Your task to perform on an android device: turn on data saver in the chrome app Image 0: 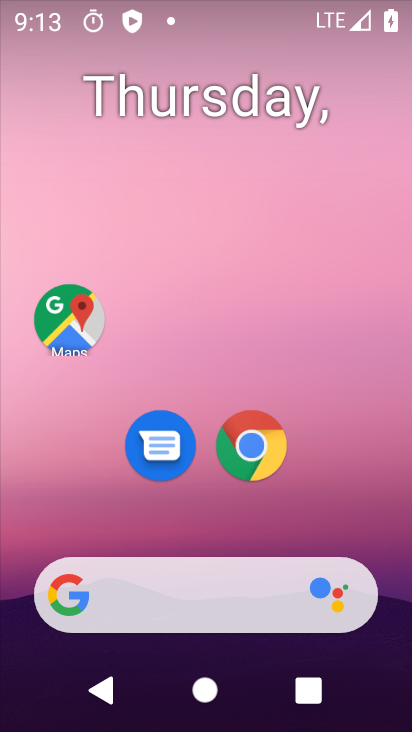
Step 0: click (248, 443)
Your task to perform on an android device: turn on data saver in the chrome app Image 1: 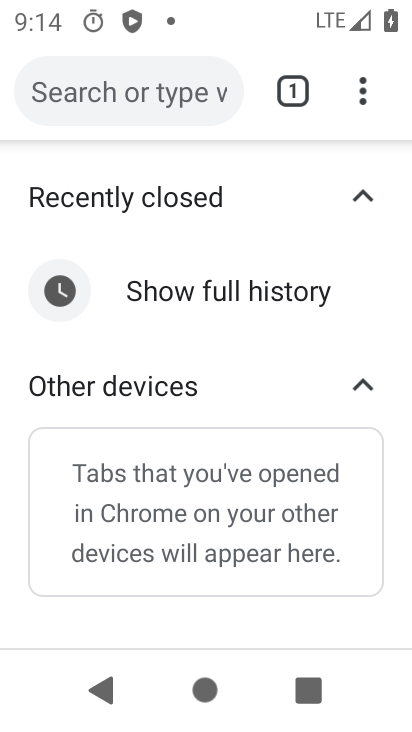
Step 1: click (362, 100)
Your task to perform on an android device: turn on data saver in the chrome app Image 2: 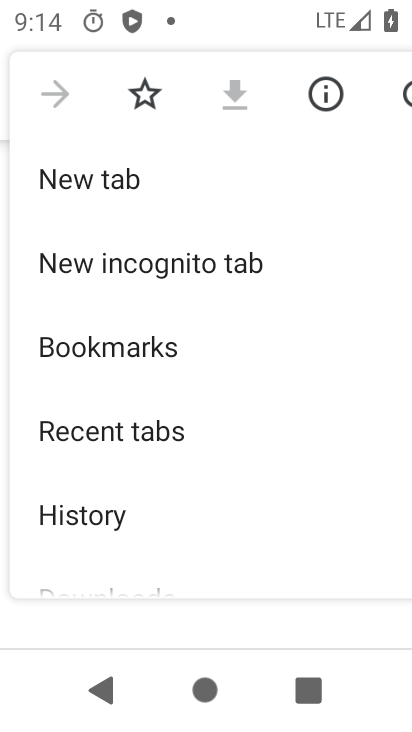
Step 2: drag from (237, 521) to (218, 88)
Your task to perform on an android device: turn on data saver in the chrome app Image 3: 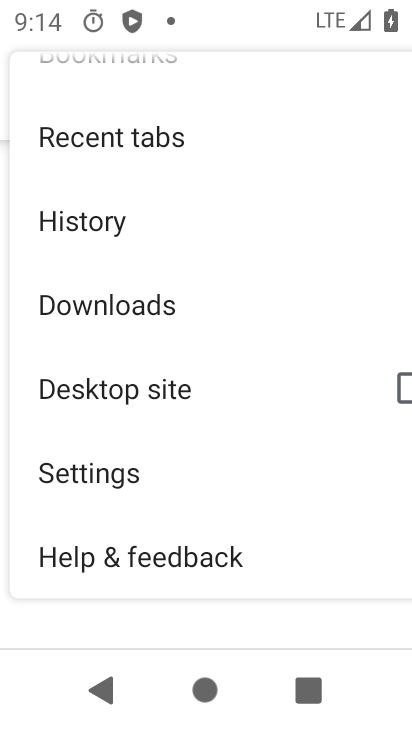
Step 3: drag from (183, 468) to (168, 294)
Your task to perform on an android device: turn on data saver in the chrome app Image 4: 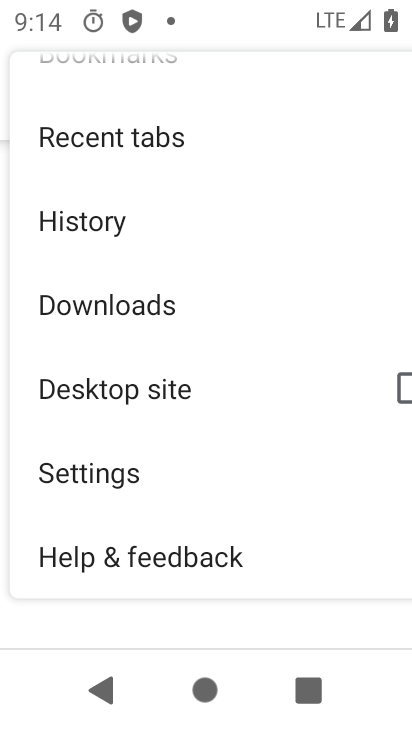
Step 4: click (57, 478)
Your task to perform on an android device: turn on data saver in the chrome app Image 5: 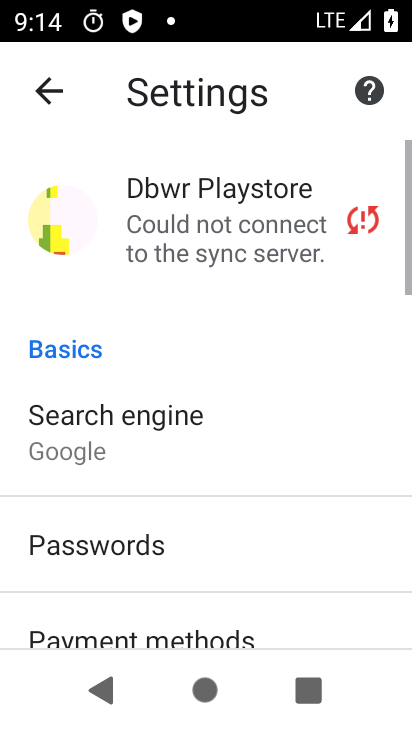
Step 5: drag from (252, 519) to (239, 137)
Your task to perform on an android device: turn on data saver in the chrome app Image 6: 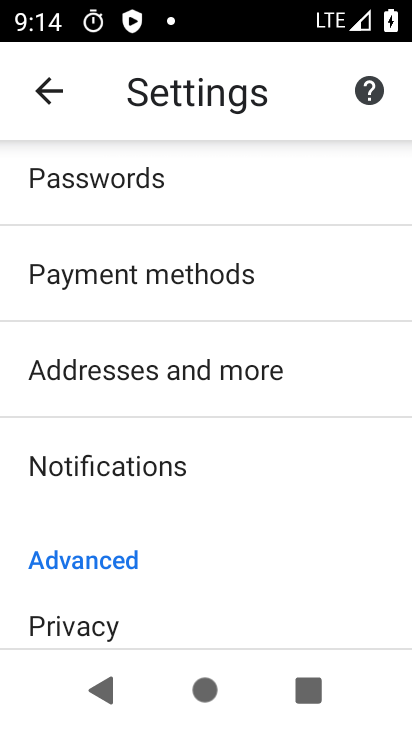
Step 6: drag from (212, 550) to (204, 121)
Your task to perform on an android device: turn on data saver in the chrome app Image 7: 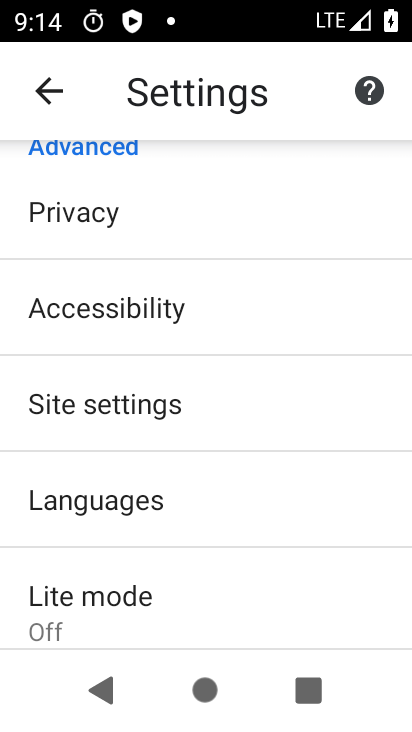
Step 7: drag from (205, 484) to (199, 236)
Your task to perform on an android device: turn on data saver in the chrome app Image 8: 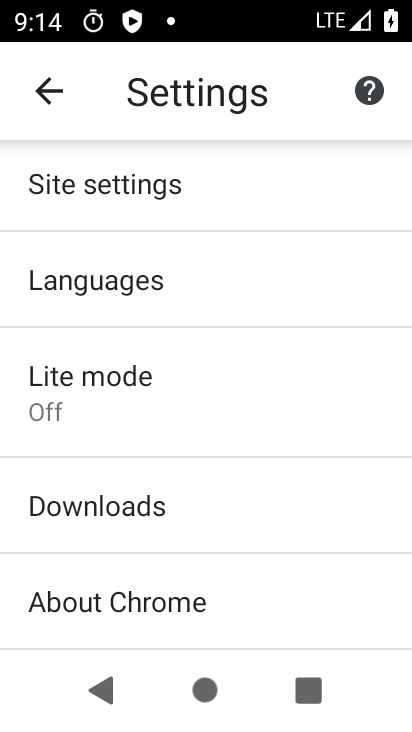
Step 8: click (67, 391)
Your task to perform on an android device: turn on data saver in the chrome app Image 9: 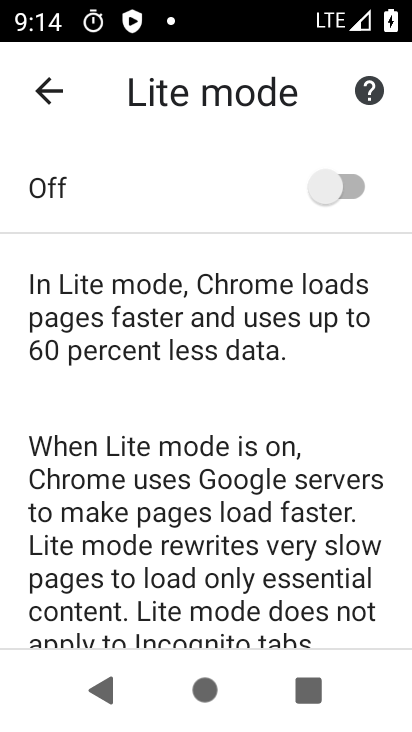
Step 9: click (342, 188)
Your task to perform on an android device: turn on data saver in the chrome app Image 10: 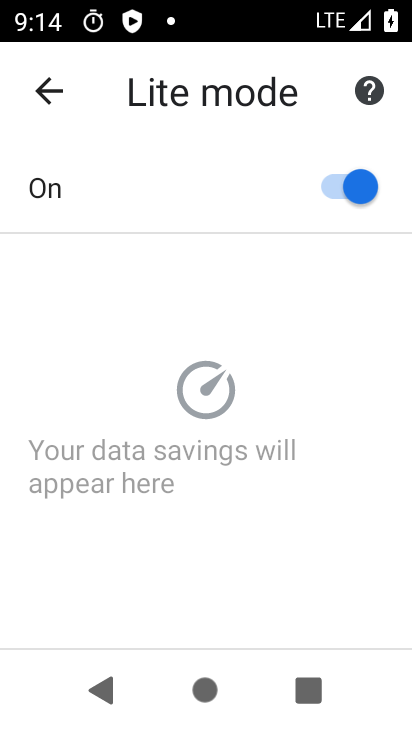
Step 10: task complete